Your task to perform on an android device: Open CNN.com Image 0: 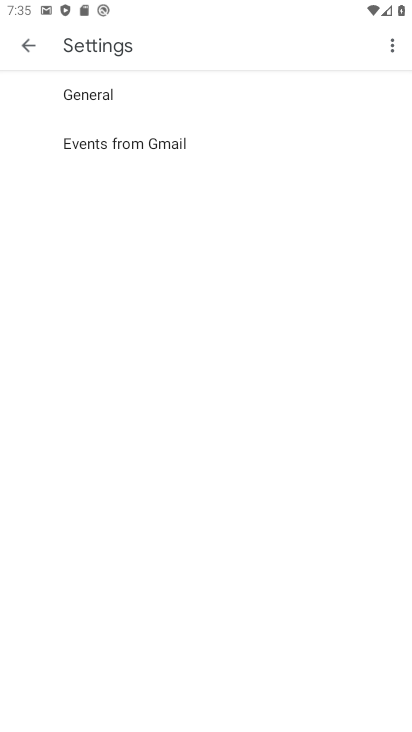
Step 0: press home button
Your task to perform on an android device: Open CNN.com Image 1: 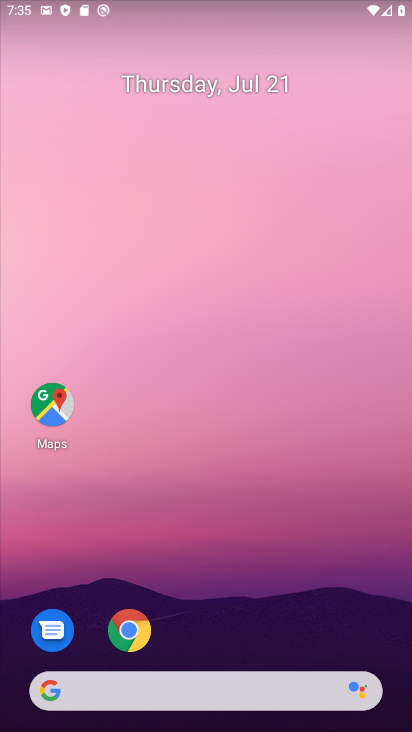
Step 1: click (127, 630)
Your task to perform on an android device: Open CNN.com Image 2: 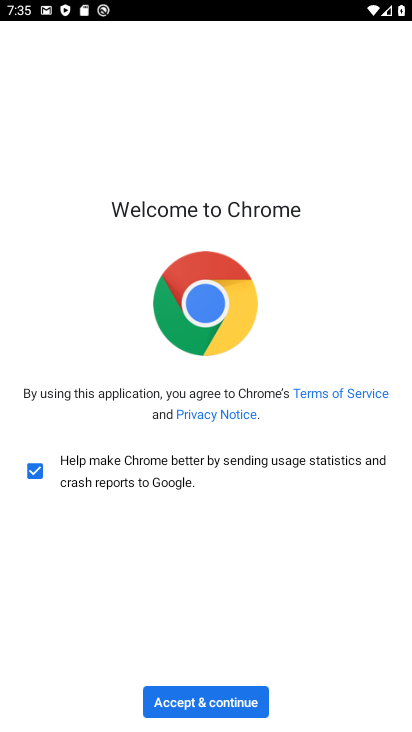
Step 2: click (256, 707)
Your task to perform on an android device: Open CNN.com Image 3: 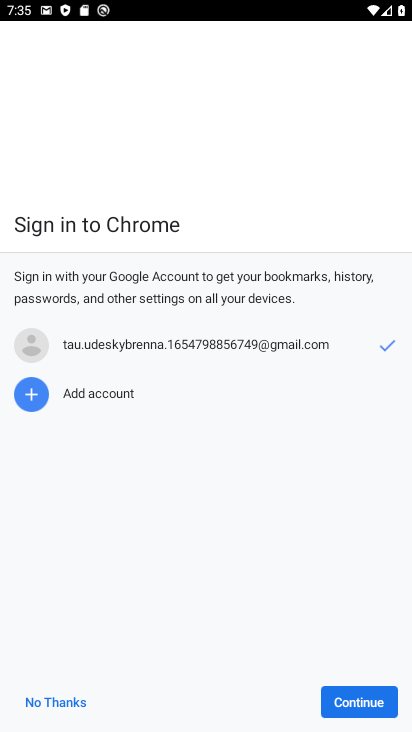
Step 3: click (372, 700)
Your task to perform on an android device: Open CNN.com Image 4: 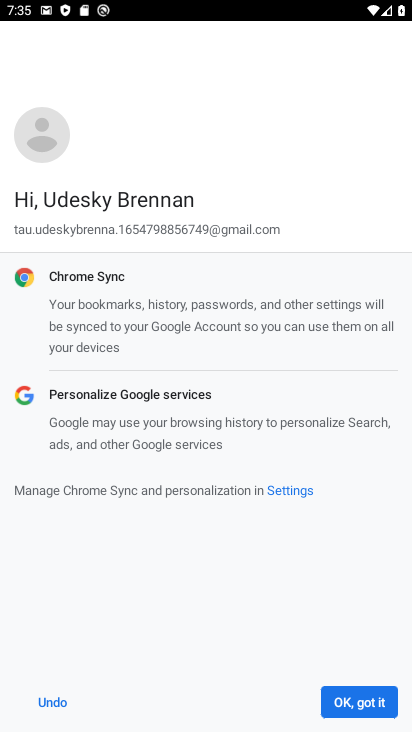
Step 4: click (372, 700)
Your task to perform on an android device: Open CNN.com Image 5: 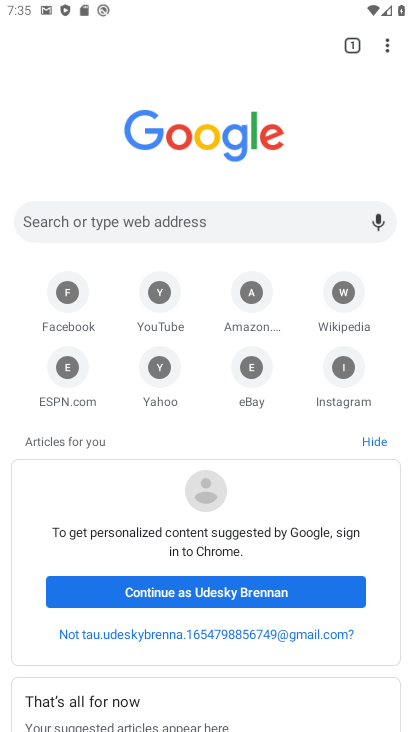
Step 5: click (74, 40)
Your task to perform on an android device: Open CNN.com Image 6: 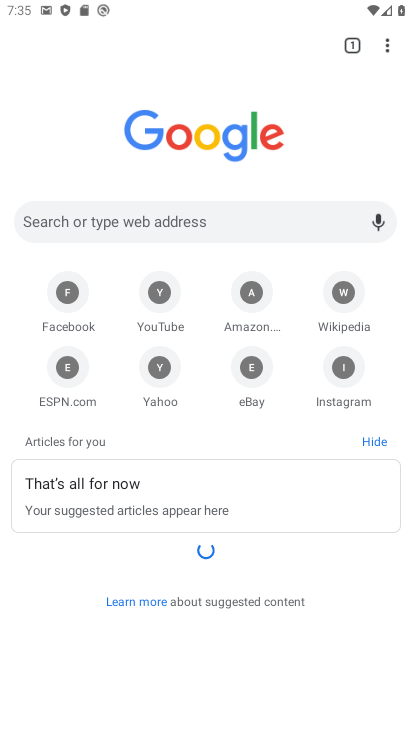
Step 6: click (121, 215)
Your task to perform on an android device: Open CNN.com Image 7: 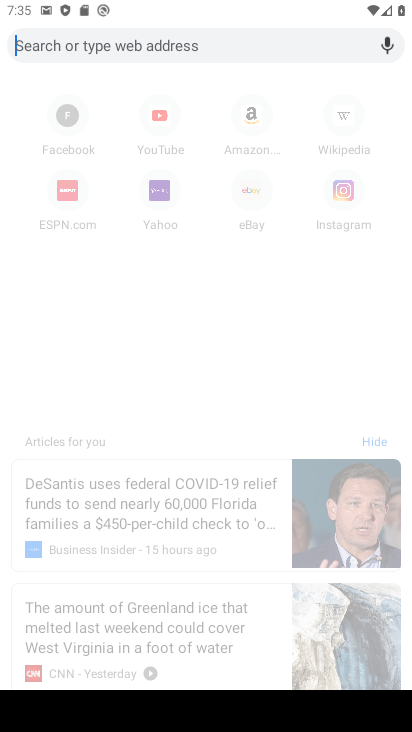
Step 7: type "cnn.com"
Your task to perform on an android device: Open CNN.com Image 8: 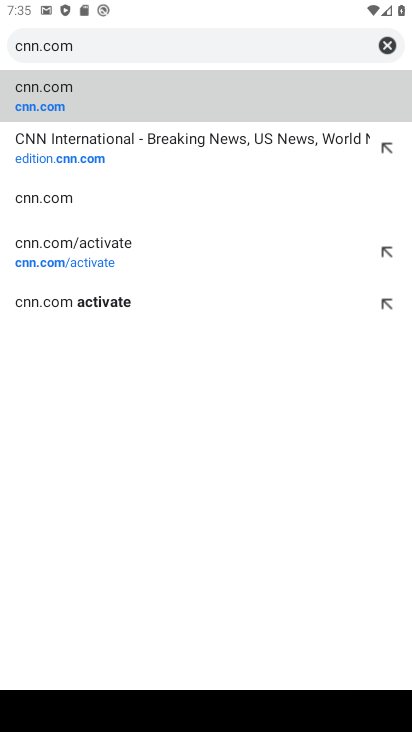
Step 8: click (43, 108)
Your task to perform on an android device: Open CNN.com Image 9: 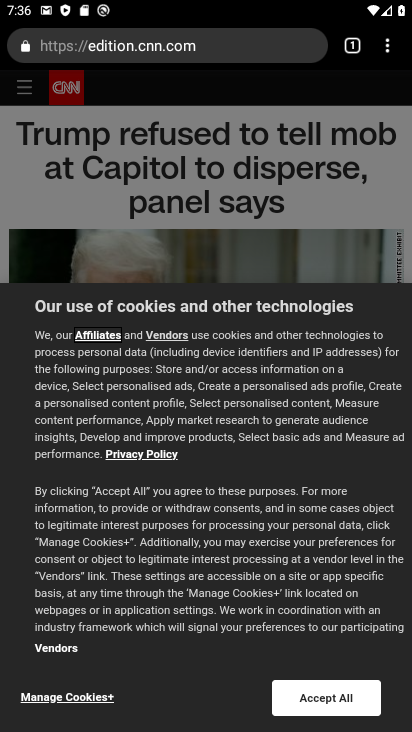
Step 9: task complete